Your task to perform on an android device: open device folders in google photos Image 0: 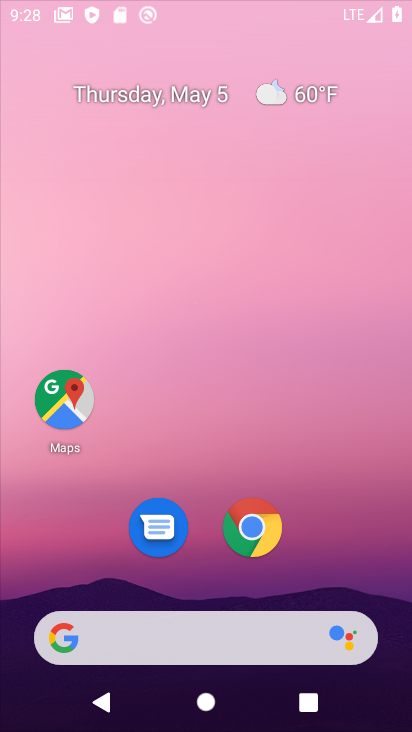
Step 0: click (277, 539)
Your task to perform on an android device: open device folders in google photos Image 1: 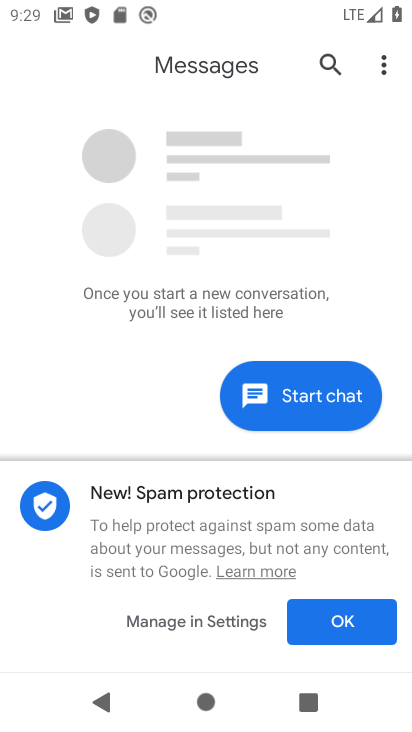
Step 1: click (369, 628)
Your task to perform on an android device: open device folders in google photos Image 2: 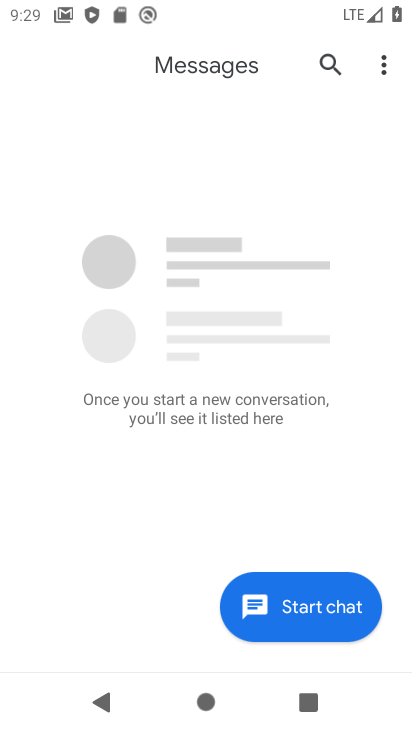
Step 2: press back button
Your task to perform on an android device: open device folders in google photos Image 3: 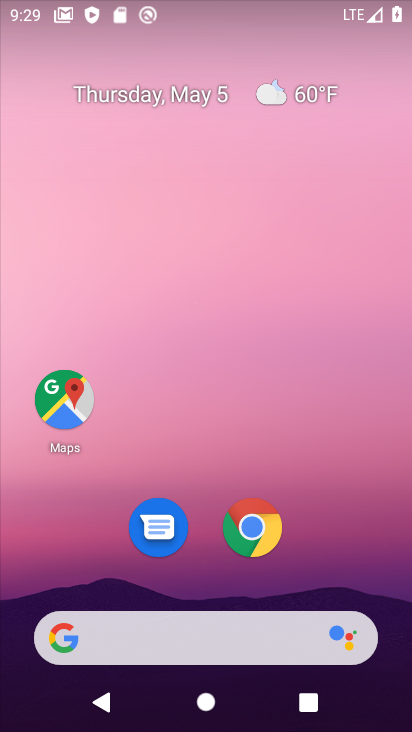
Step 3: drag from (306, 602) to (361, 193)
Your task to perform on an android device: open device folders in google photos Image 4: 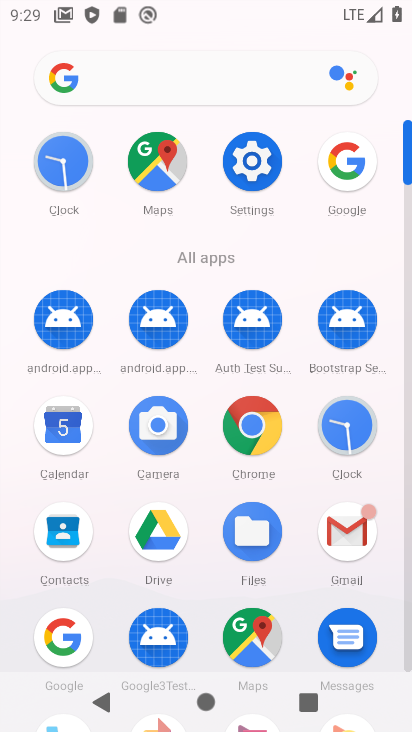
Step 4: drag from (203, 602) to (258, 304)
Your task to perform on an android device: open device folders in google photos Image 5: 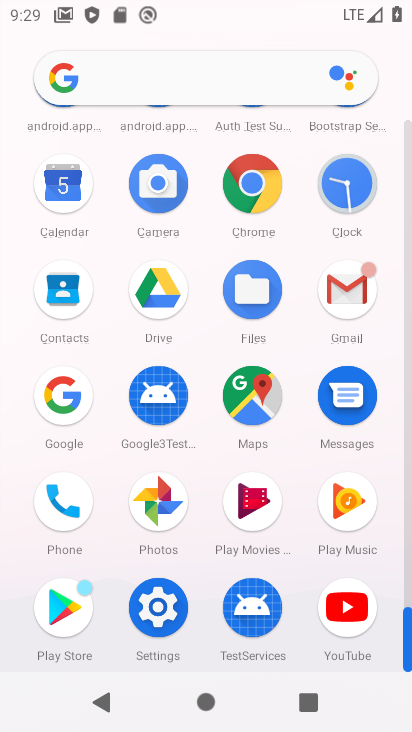
Step 5: drag from (253, 209) to (204, 637)
Your task to perform on an android device: open device folders in google photos Image 6: 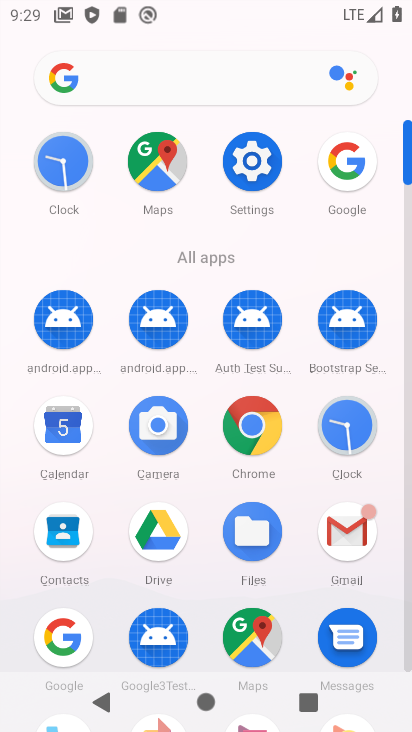
Step 6: drag from (216, 567) to (260, 198)
Your task to perform on an android device: open device folders in google photos Image 7: 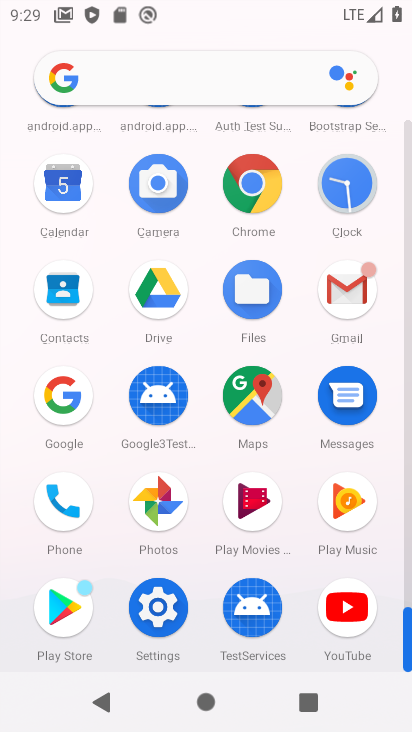
Step 7: click (166, 513)
Your task to perform on an android device: open device folders in google photos Image 8: 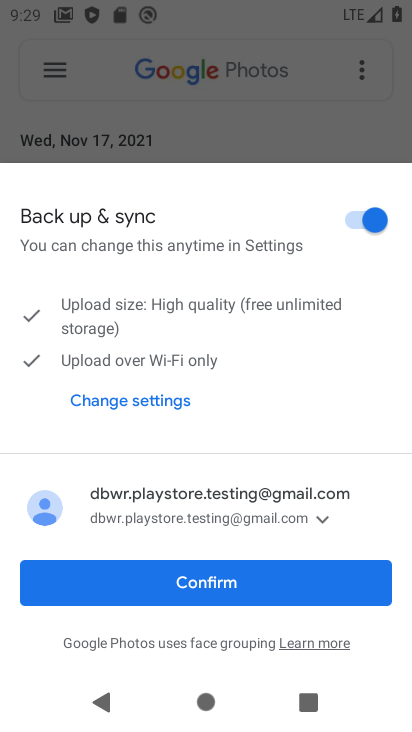
Step 8: click (197, 591)
Your task to perform on an android device: open device folders in google photos Image 9: 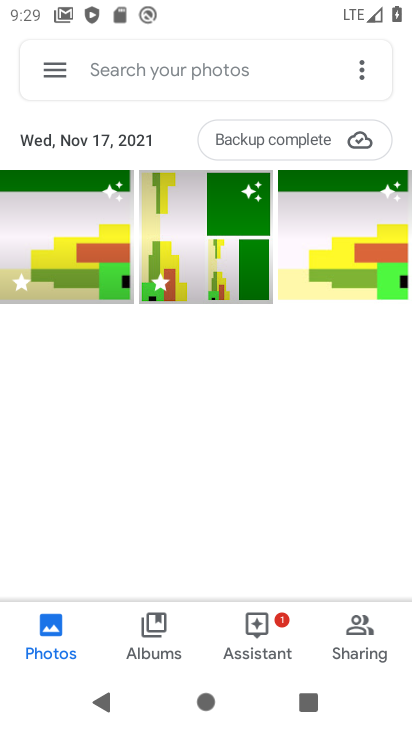
Step 9: click (48, 84)
Your task to perform on an android device: open device folders in google photos Image 10: 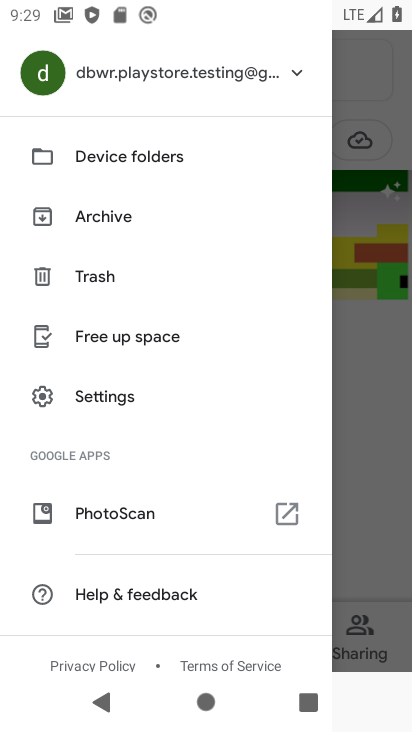
Step 10: click (164, 154)
Your task to perform on an android device: open device folders in google photos Image 11: 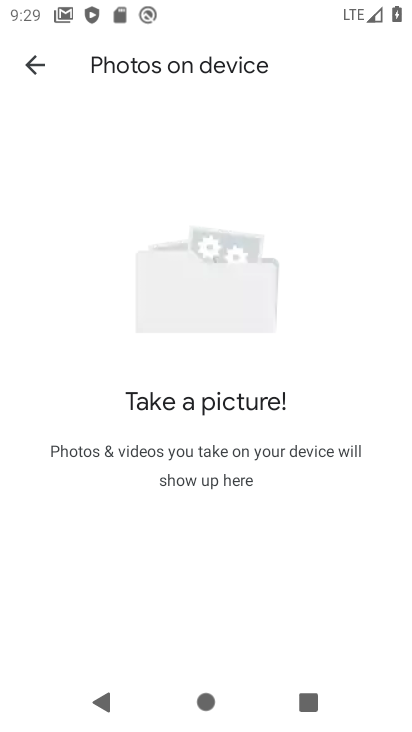
Step 11: task complete